Your task to perform on an android device: delete browsing data in the chrome app Image 0: 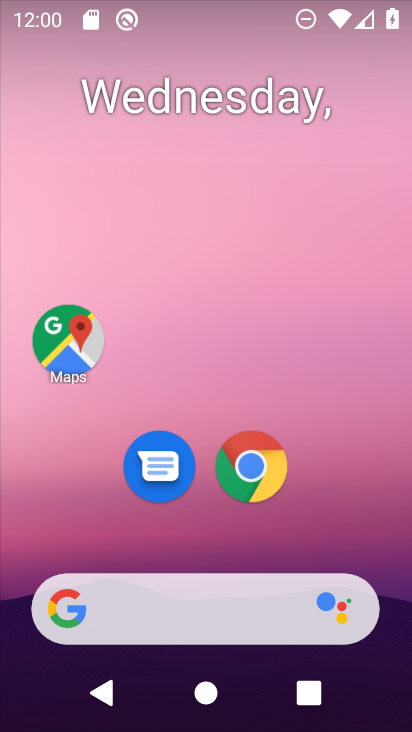
Step 0: click (255, 455)
Your task to perform on an android device: delete browsing data in the chrome app Image 1: 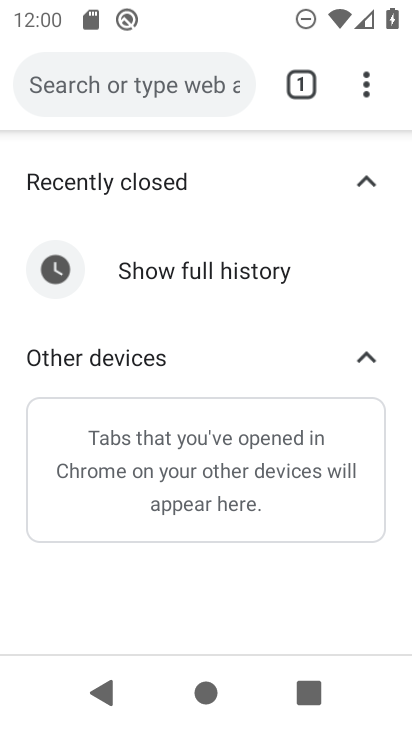
Step 1: click (367, 84)
Your task to perform on an android device: delete browsing data in the chrome app Image 2: 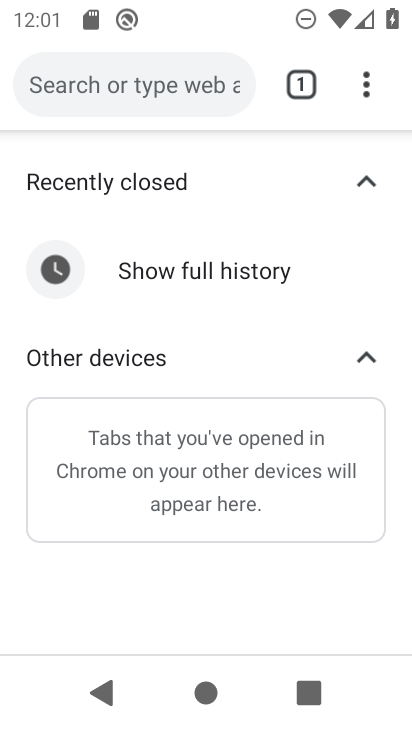
Step 2: click (363, 82)
Your task to perform on an android device: delete browsing data in the chrome app Image 3: 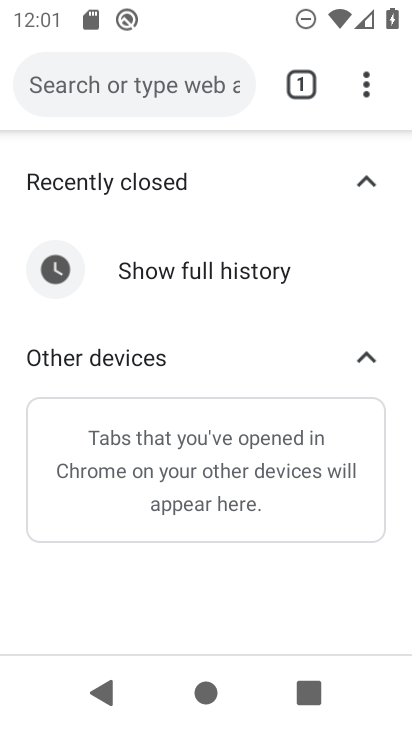
Step 3: click (356, 81)
Your task to perform on an android device: delete browsing data in the chrome app Image 4: 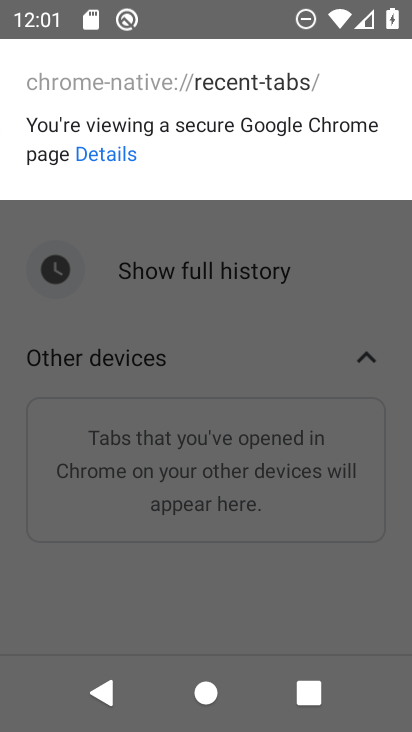
Step 4: click (308, 347)
Your task to perform on an android device: delete browsing data in the chrome app Image 5: 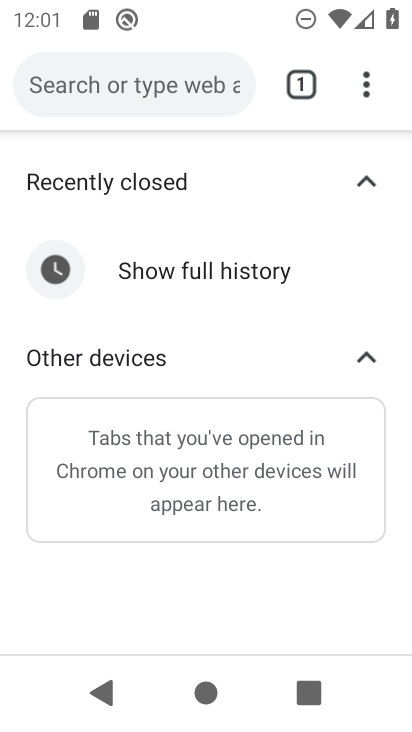
Step 5: click (368, 89)
Your task to perform on an android device: delete browsing data in the chrome app Image 6: 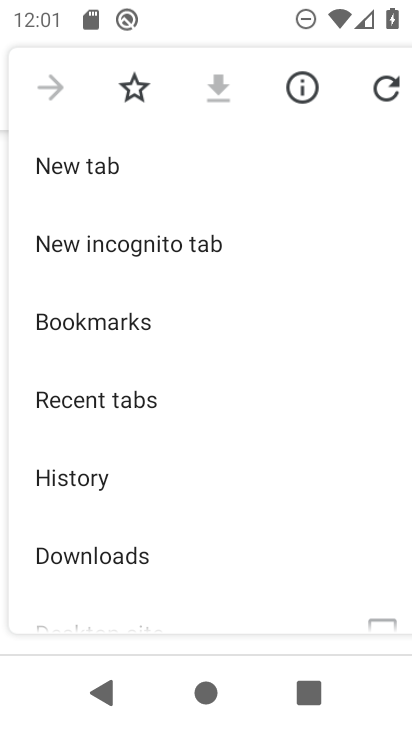
Step 6: click (114, 474)
Your task to perform on an android device: delete browsing data in the chrome app Image 7: 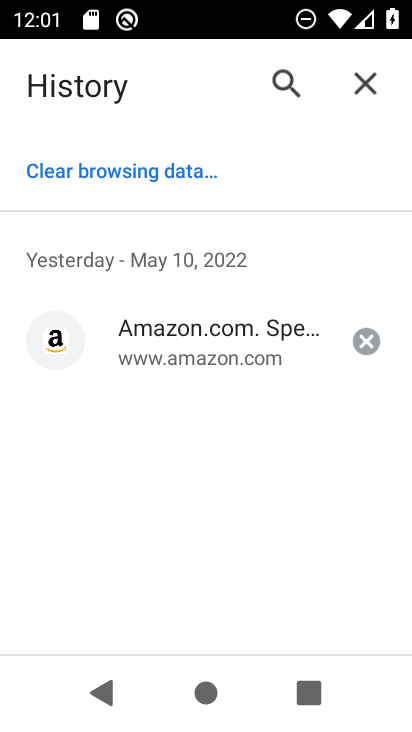
Step 7: click (117, 174)
Your task to perform on an android device: delete browsing data in the chrome app Image 8: 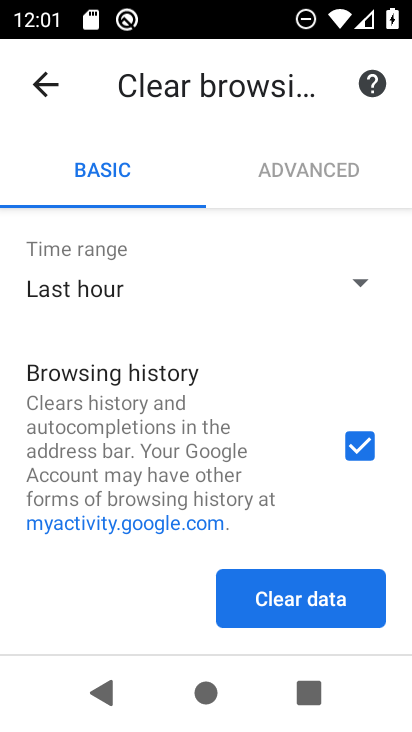
Step 8: click (296, 600)
Your task to perform on an android device: delete browsing data in the chrome app Image 9: 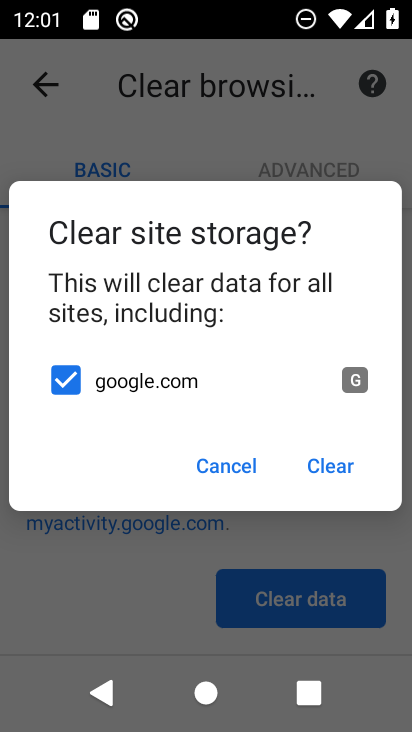
Step 9: click (332, 477)
Your task to perform on an android device: delete browsing data in the chrome app Image 10: 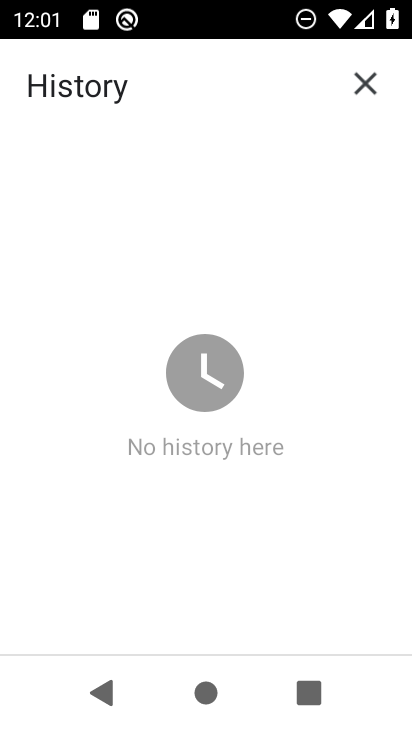
Step 10: task complete